Your task to perform on an android device: open the mobile data screen to see how much data has been used Image 0: 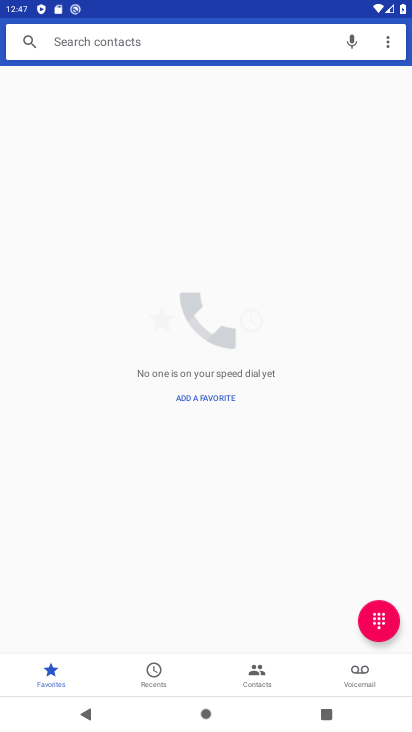
Step 0: press home button
Your task to perform on an android device: open the mobile data screen to see how much data has been used Image 1: 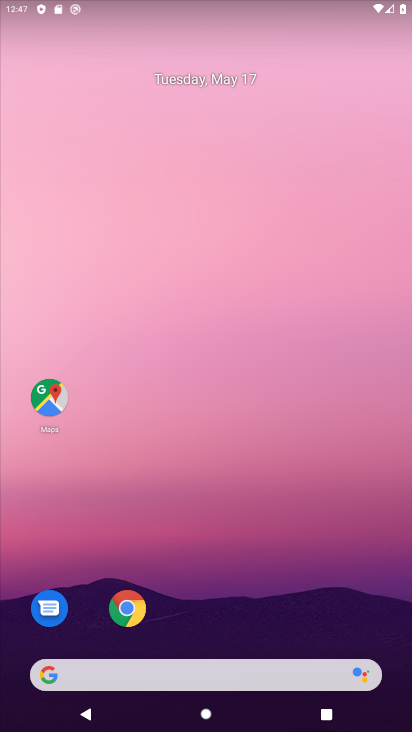
Step 1: drag from (196, 603) to (335, 17)
Your task to perform on an android device: open the mobile data screen to see how much data has been used Image 2: 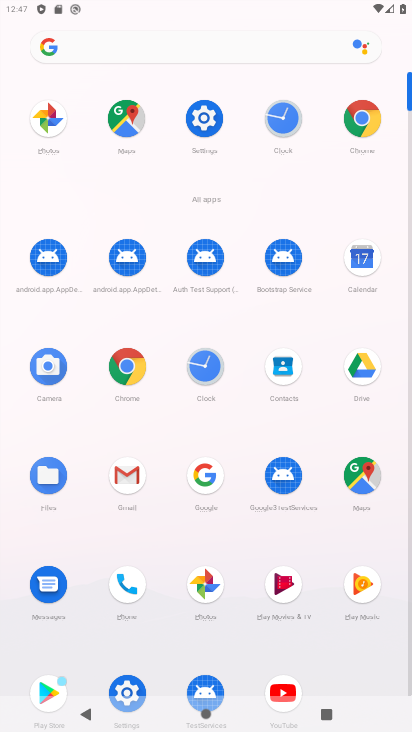
Step 2: click (199, 110)
Your task to perform on an android device: open the mobile data screen to see how much data has been used Image 3: 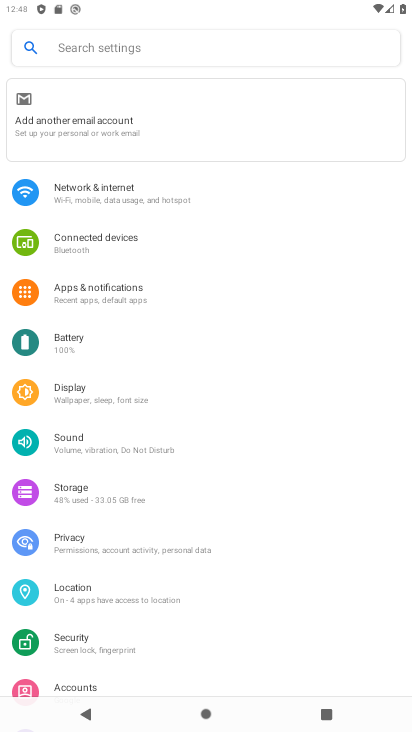
Step 3: click (192, 203)
Your task to perform on an android device: open the mobile data screen to see how much data has been used Image 4: 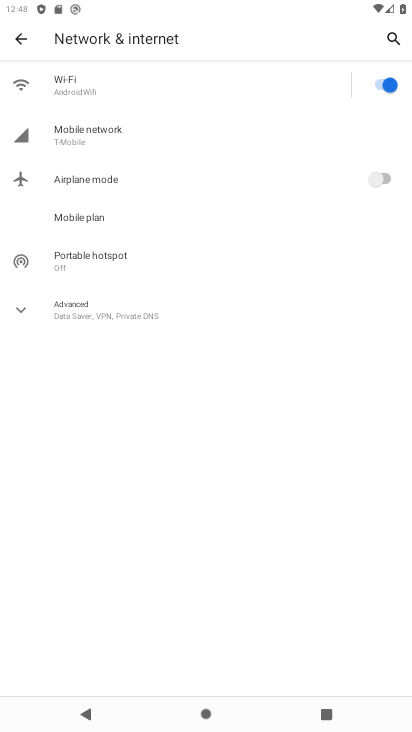
Step 4: click (58, 124)
Your task to perform on an android device: open the mobile data screen to see how much data has been used Image 5: 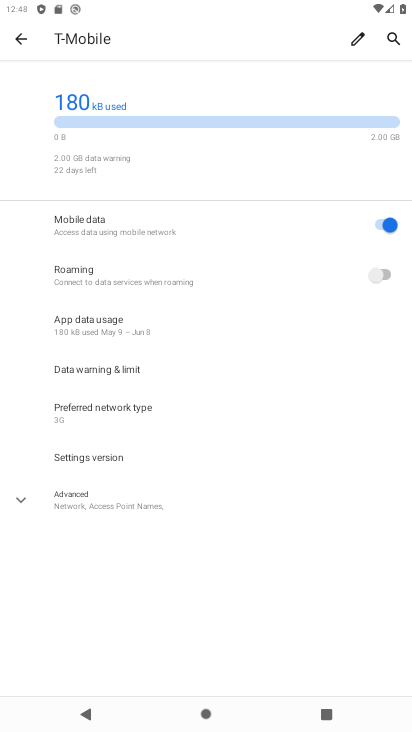
Step 5: task complete